Your task to perform on an android device: install app "Google Translate" Image 0: 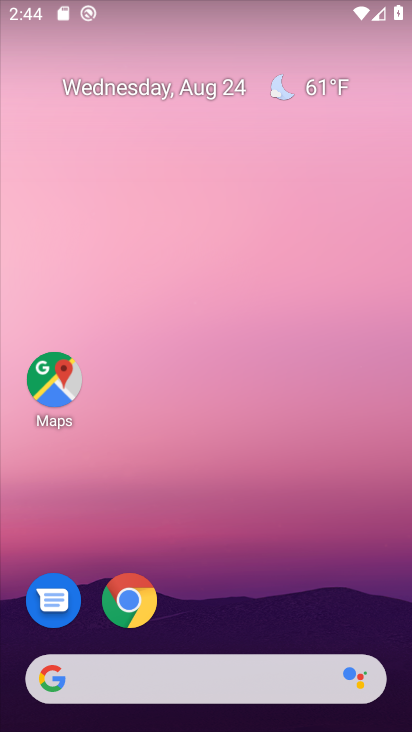
Step 0: drag from (236, 524) to (269, 97)
Your task to perform on an android device: install app "Google Translate" Image 1: 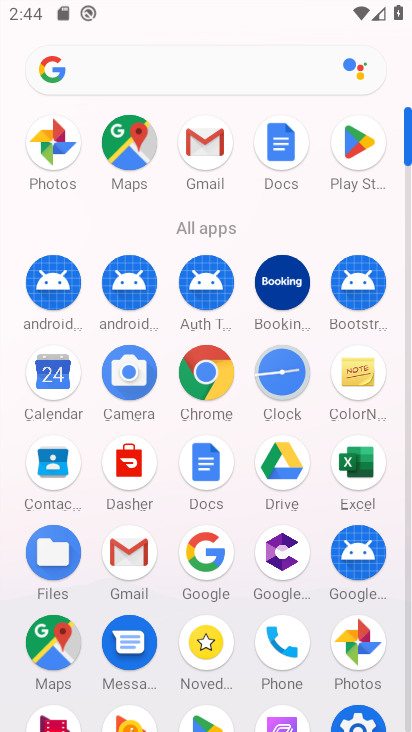
Step 1: click (351, 131)
Your task to perform on an android device: install app "Google Translate" Image 2: 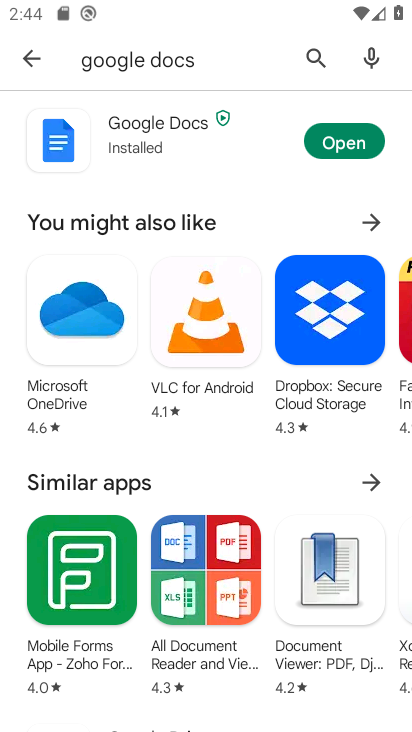
Step 2: click (329, 57)
Your task to perform on an android device: install app "Google Translate" Image 3: 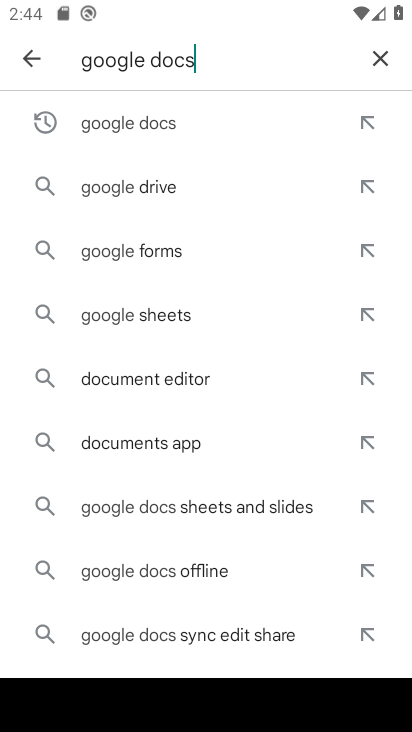
Step 3: click (389, 59)
Your task to perform on an android device: install app "Google Translate" Image 4: 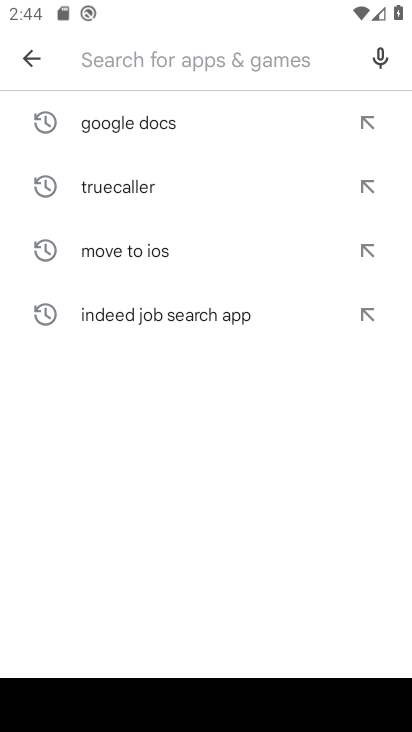
Step 4: click (105, 62)
Your task to perform on an android device: install app "Google Translate" Image 5: 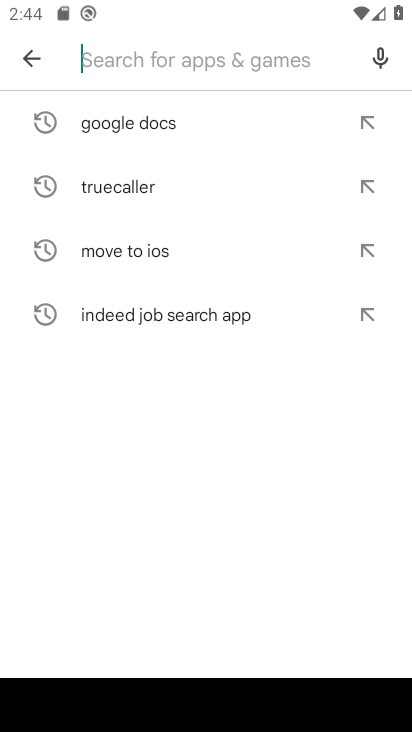
Step 5: type "Google Translate"
Your task to perform on an android device: install app "Google Translate" Image 6: 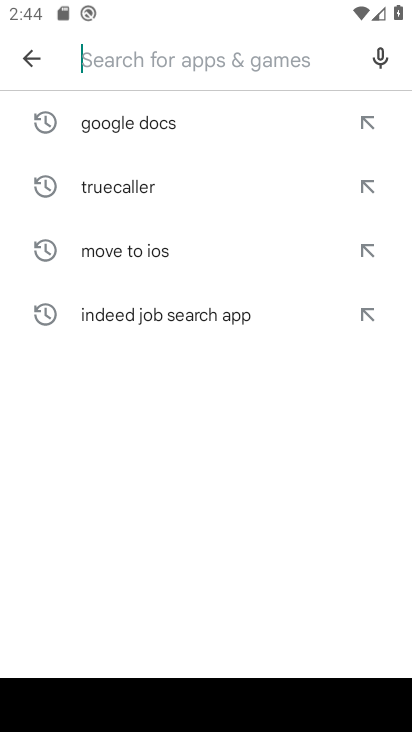
Step 6: click (230, 497)
Your task to perform on an android device: install app "Google Translate" Image 7: 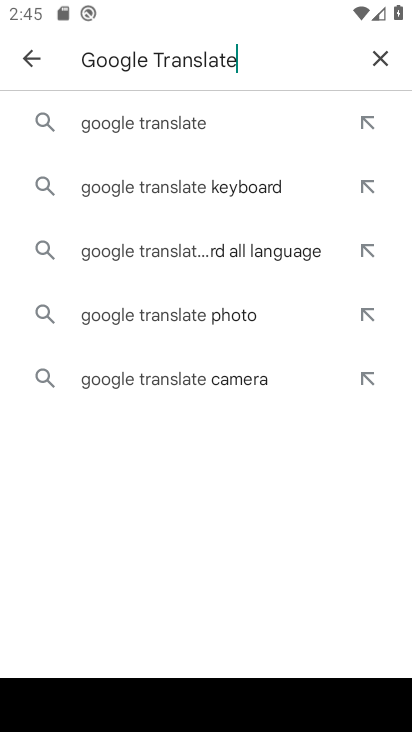
Step 7: click (133, 128)
Your task to perform on an android device: install app "Google Translate" Image 8: 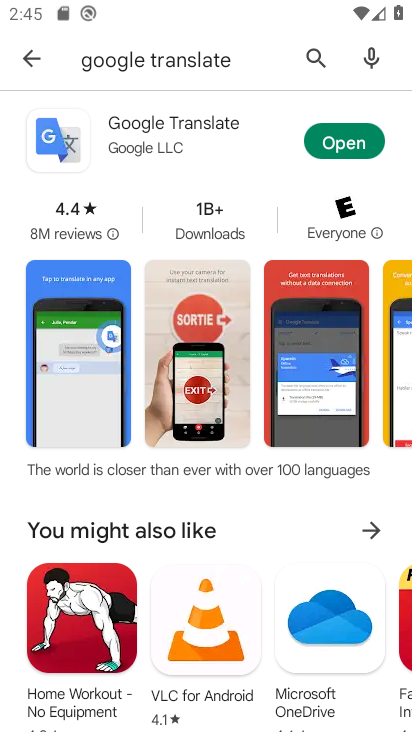
Step 8: task complete